Your task to perform on an android device: toggle airplane mode Image 0: 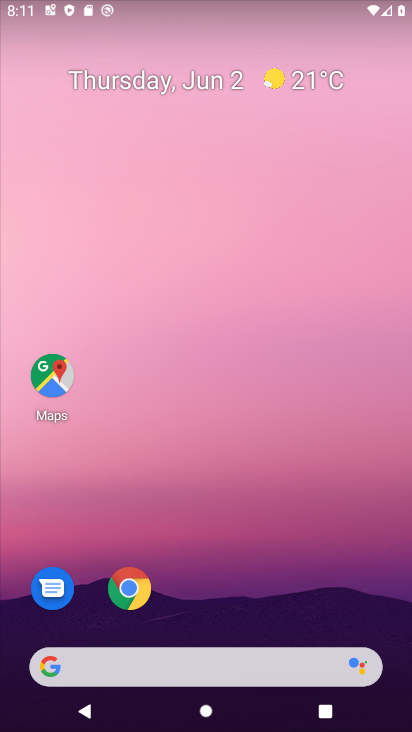
Step 0: drag from (222, 665) to (131, 14)
Your task to perform on an android device: toggle airplane mode Image 1: 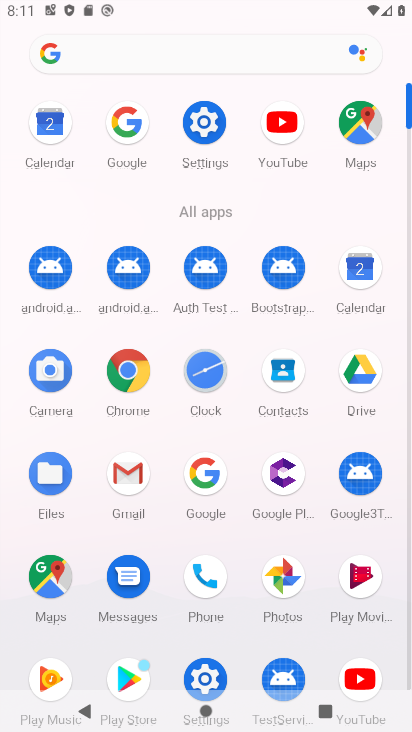
Step 1: click (193, 142)
Your task to perform on an android device: toggle airplane mode Image 2: 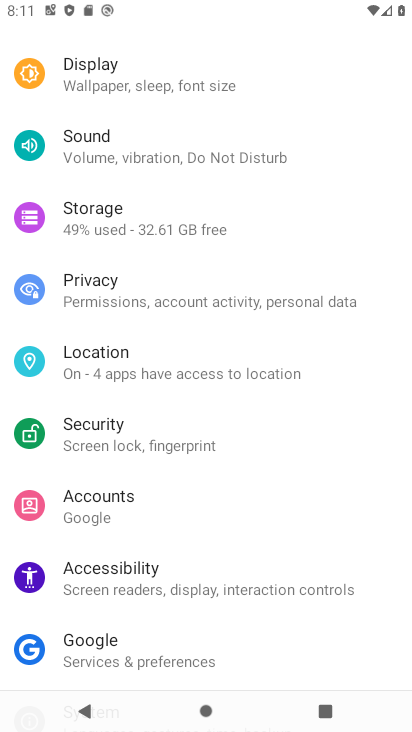
Step 2: drag from (121, 125) to (146, 640)
Your task to perform on an android device: toggle airplane mode Image 3: 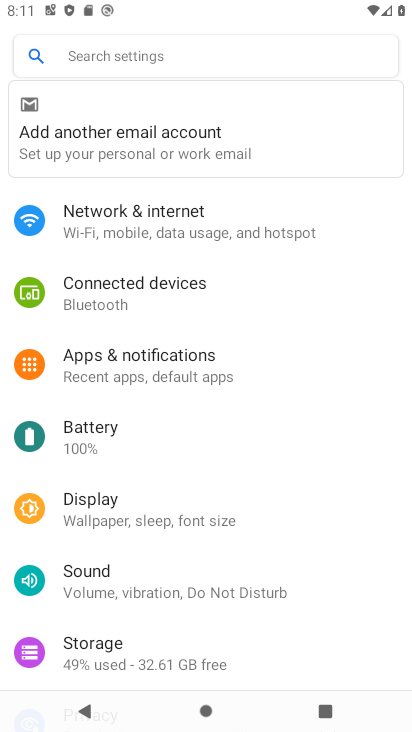
Step 3: click (109, 224)
Your task to perform on an android device: toggle airplane mode Image 4: 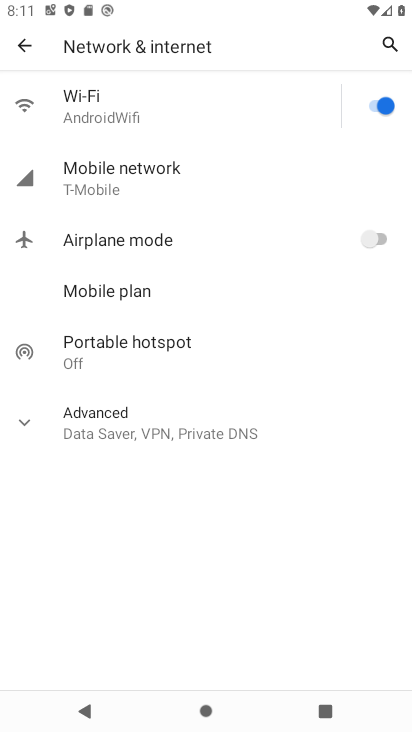
Step 4: click (109, 224)
Your task to perform on an android device: toggle airplane mode Image 5: 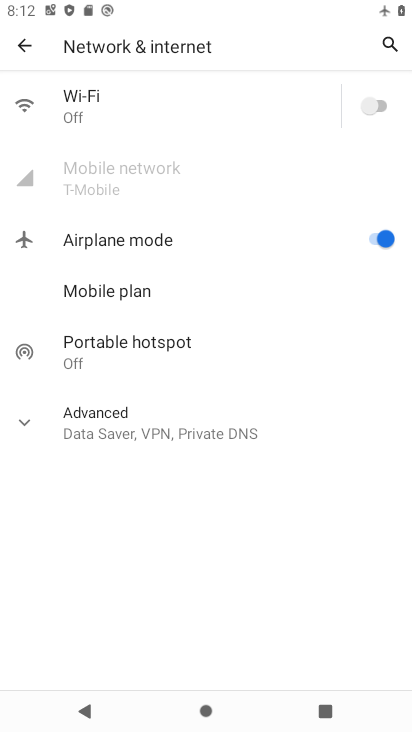
Step 5: click (389, 232)
Your task to perform on an android device: toggle airplane mode Image 6: 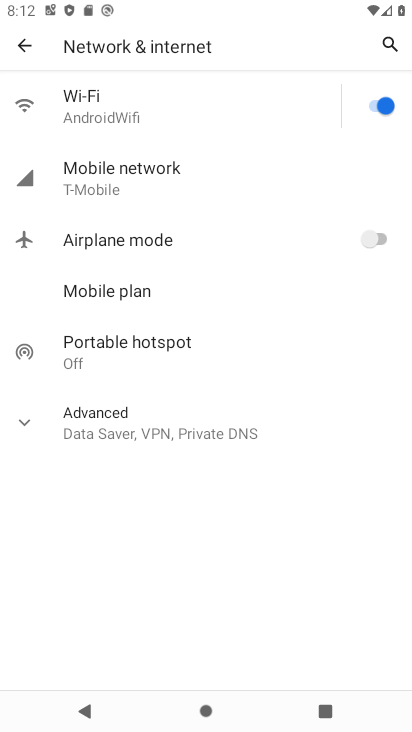
Step 6: task complete